Your task to perform on an android device: toggle wifi Image 0: 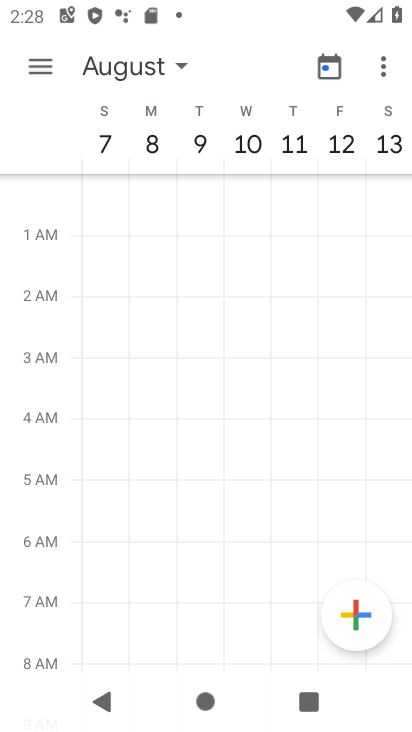
Step 0: press home button
Your task to perform on an android device: toggle wifi Image 1: 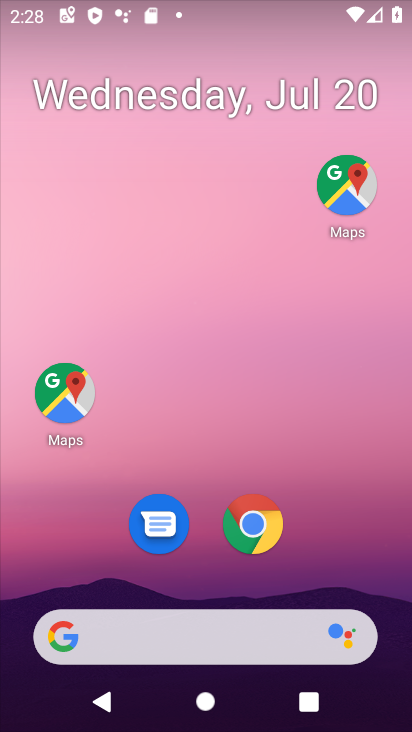
Step 1: drag from (346, 554) to (361, 33)
Your task to perform on an android device: toggle wifi Image 2: 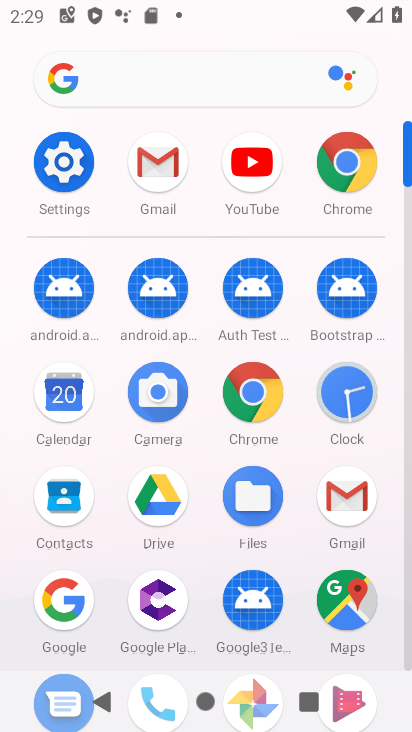
Step 2: click (70, 142)
Your task to perform on an android device: toggle wifi Image 3: 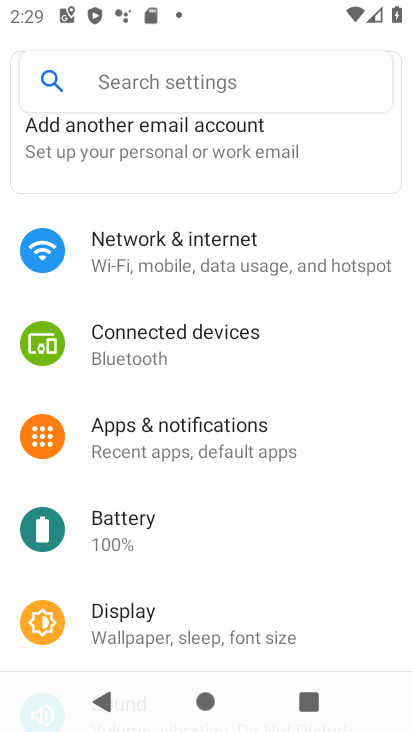
Step 3: click (227, 254)
Your task to perform on an android device: toggle wifi Image 4: 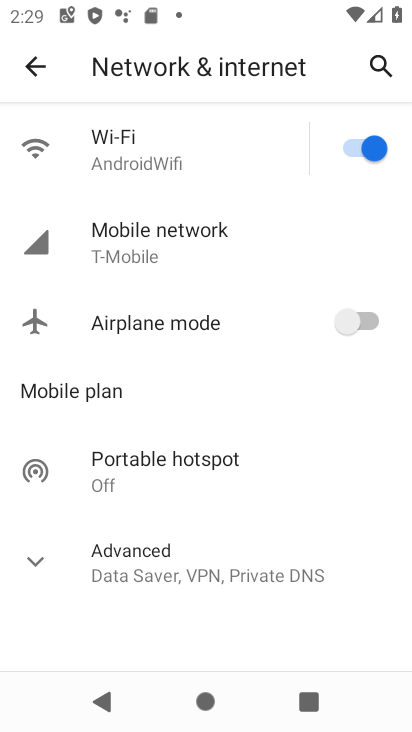
Step 4: click (366, 127)
Your task to perform on an android device: toggle wifi Image 5: 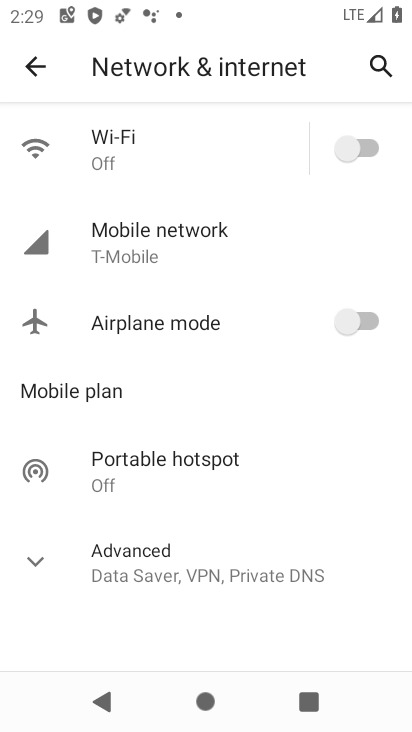
Step 5: task complete